Your task to perform on an android device: Open Amazon Image 0: 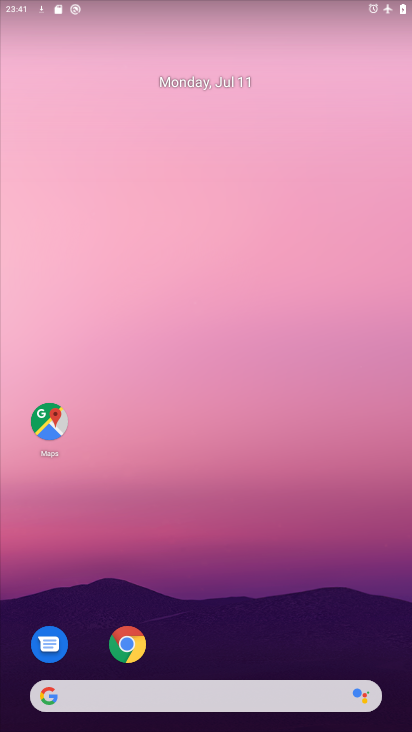
Step 0: drag from (203, 591) to (206, 165)
Your task to perform on an android device: Open Amazon Image 1: 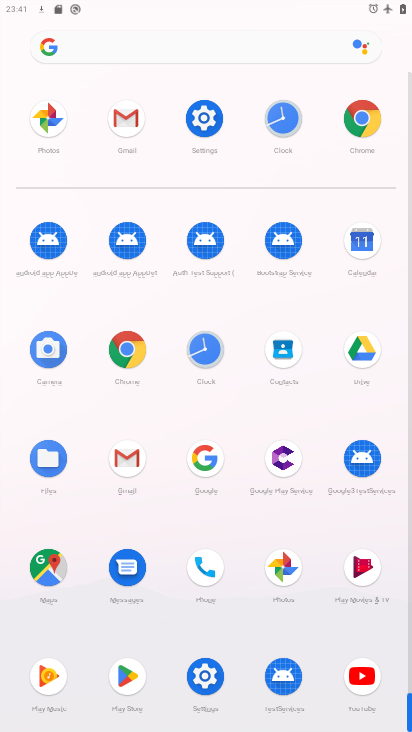
Step 1: click (360, 125)
Your task to perform on an android device: Open Amazon Image 2: 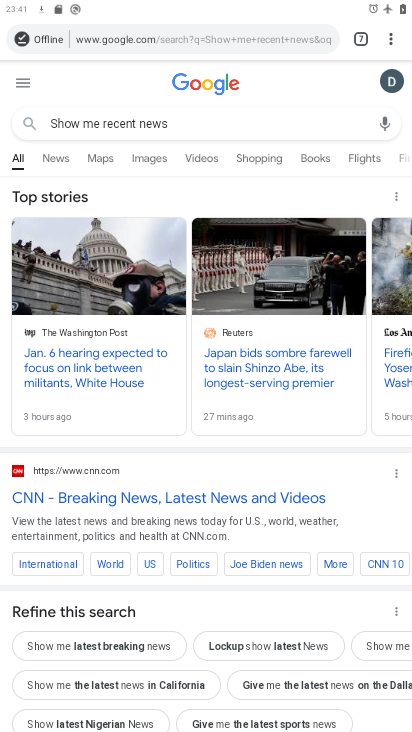
Step 2: click (389, 41)
Your task to perform on an android device: Open Amazon Image 3: 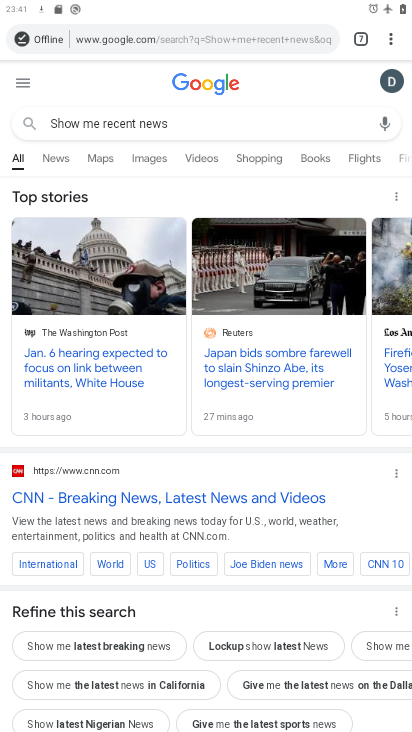
Step 3: click (389, 41)
Your task to perform on an android device: Open Amazon Image 4: 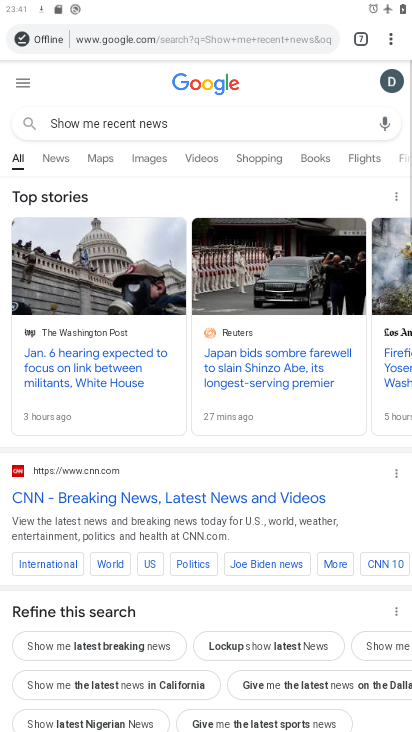
Step 4: click (389, 36)
Your task to perform on an android device: Open Amazon Image 5: 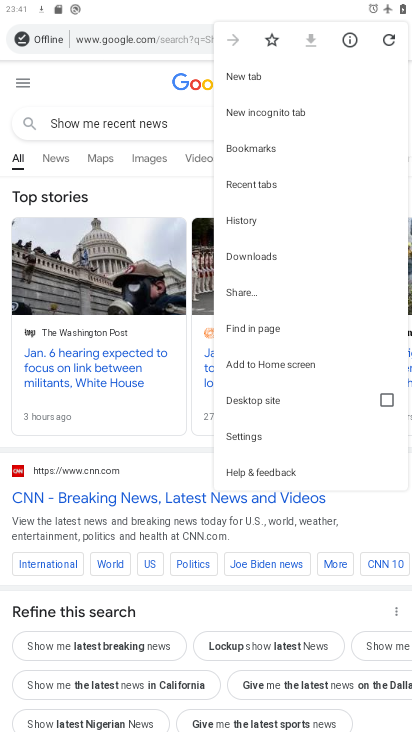
Step 5: click (258, 74)
Your task to perform on an android device: Open Amazon Image 6: 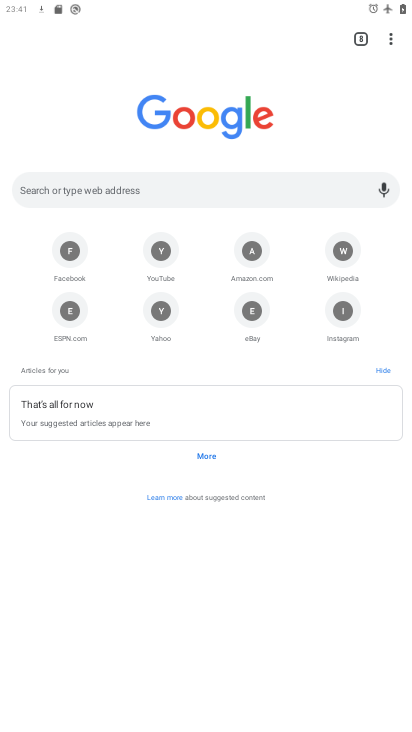
Step 6: click (259, 259)
Your task to perform on an android device: Open Amazon Image 7: 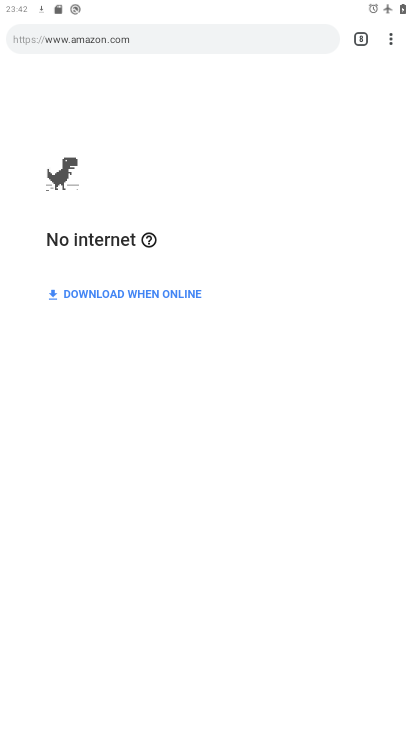
Step 7: task complete